Your task to perform on an android device: Is it going to rain today? Image 0: 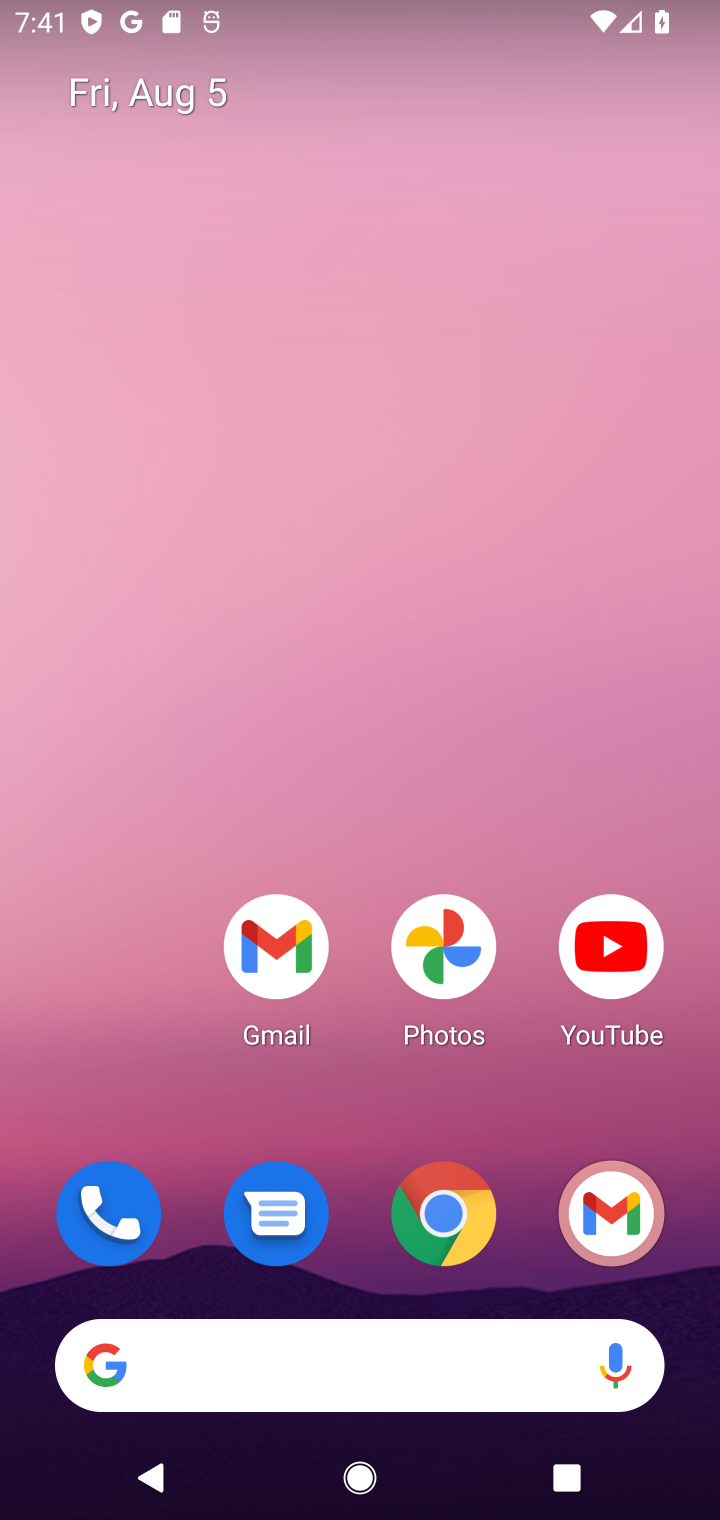
Step 0: drag from (281, 1182) to (328, 152)
Your task to perform on an android device: Is it going to rain today? Image 1: 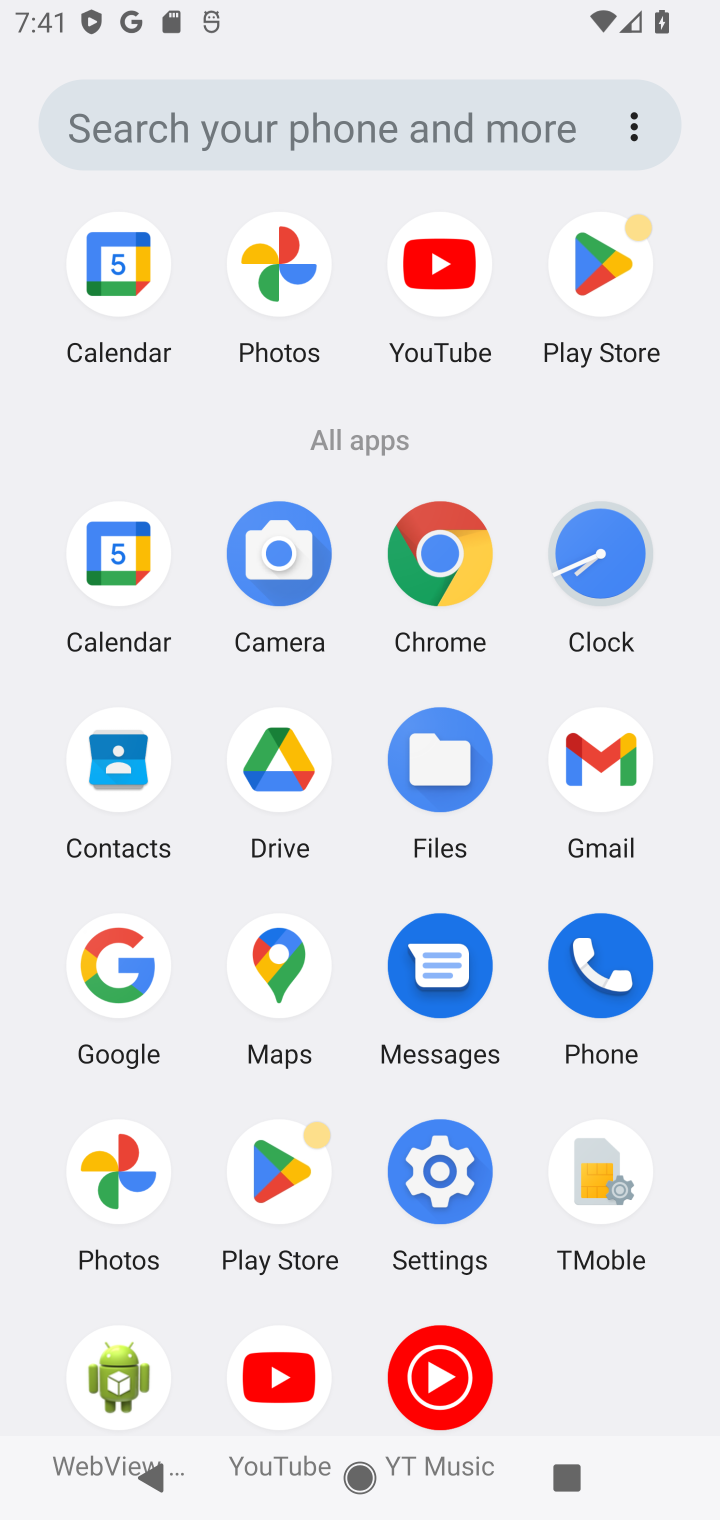
Step 1: click (437, 551)
Your task to perform on an android device: Is it going to rain today? Image 2: 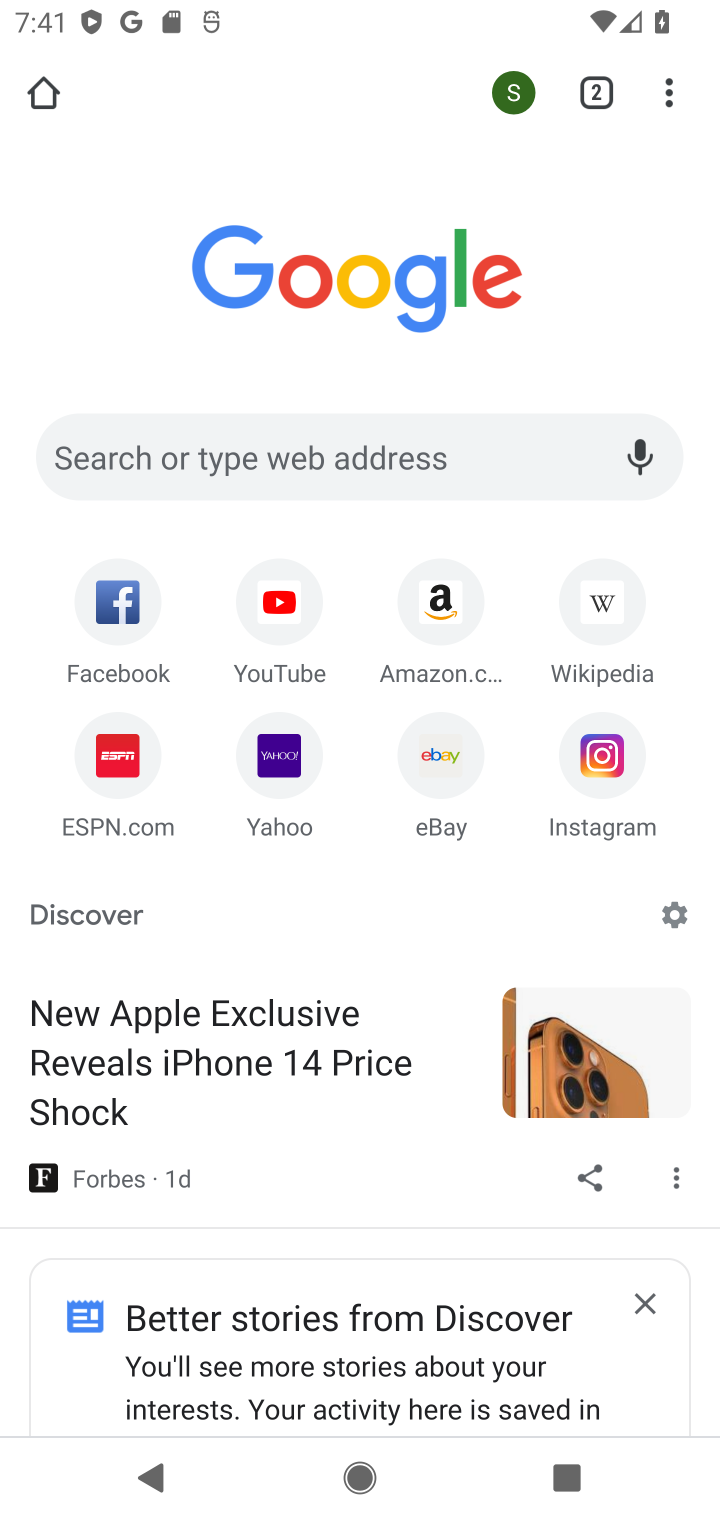
Step 2: click (310, 439)
Your task to perform on an android device: Is it going to rain today? Image 3: 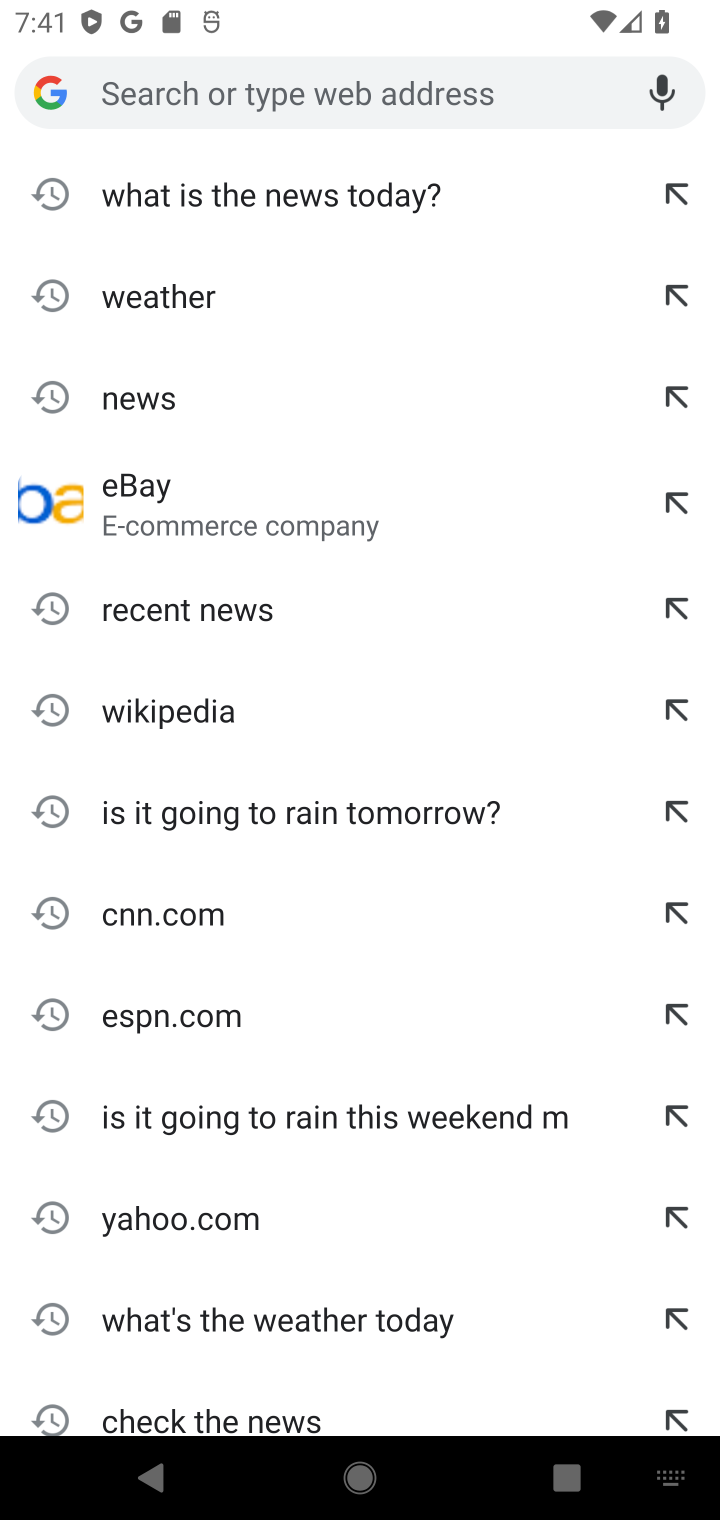
Step 3: type "Is it going to rain today "
Your task to perform on an android device: Is it going to rain today? Image 4: 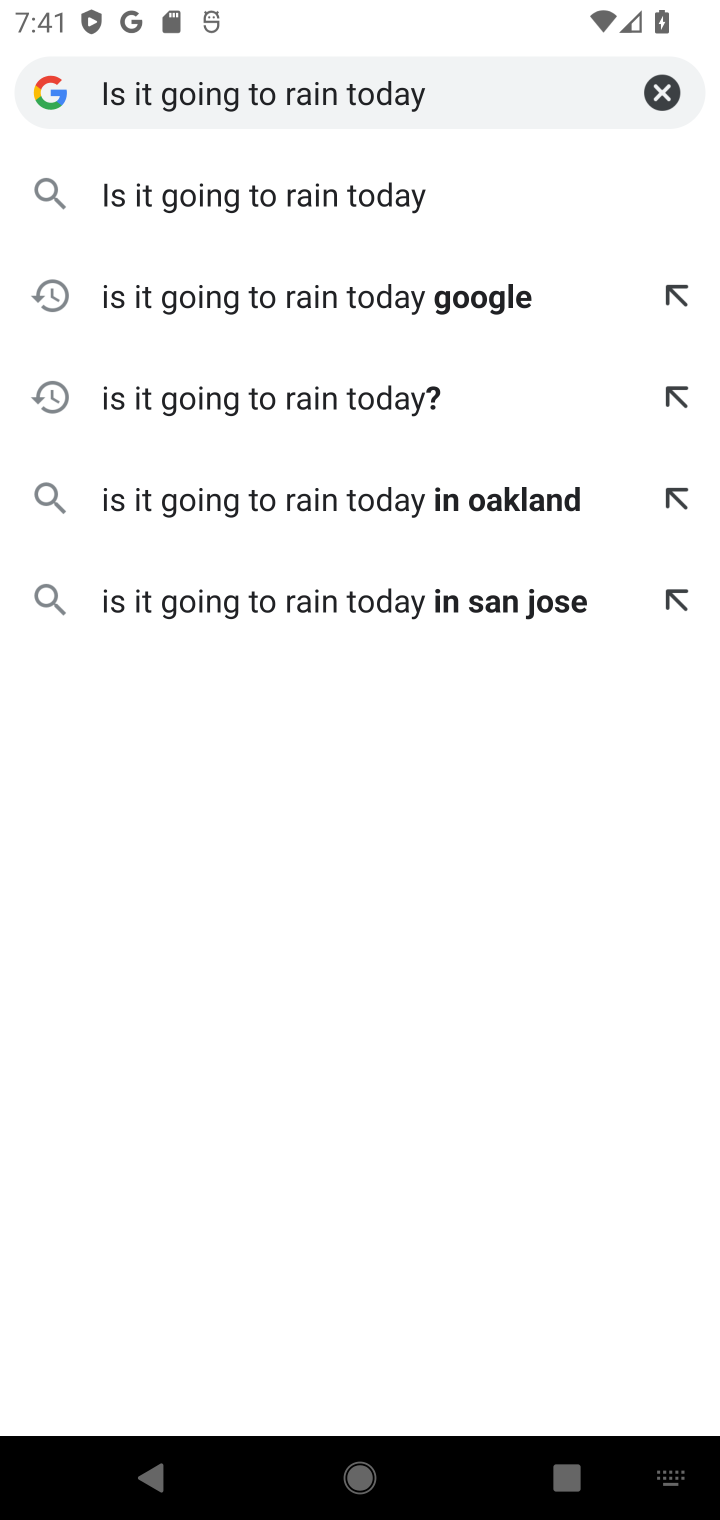
Step 4: click (317, 196)
Your task to perform on an android device: Is it going to rain today? Image 5: 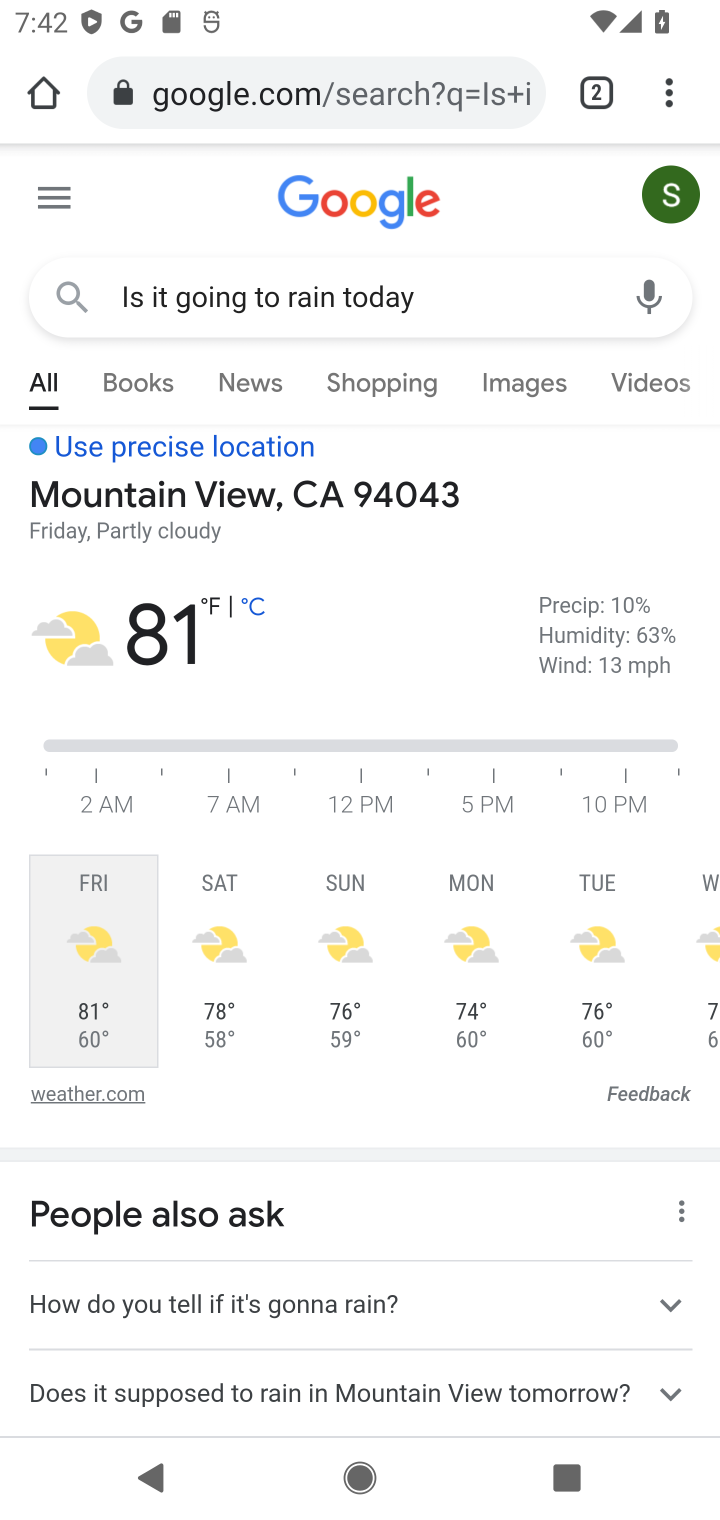
Step 5: task complete